Your task to perform on an android device: turn on wifi Image 0: 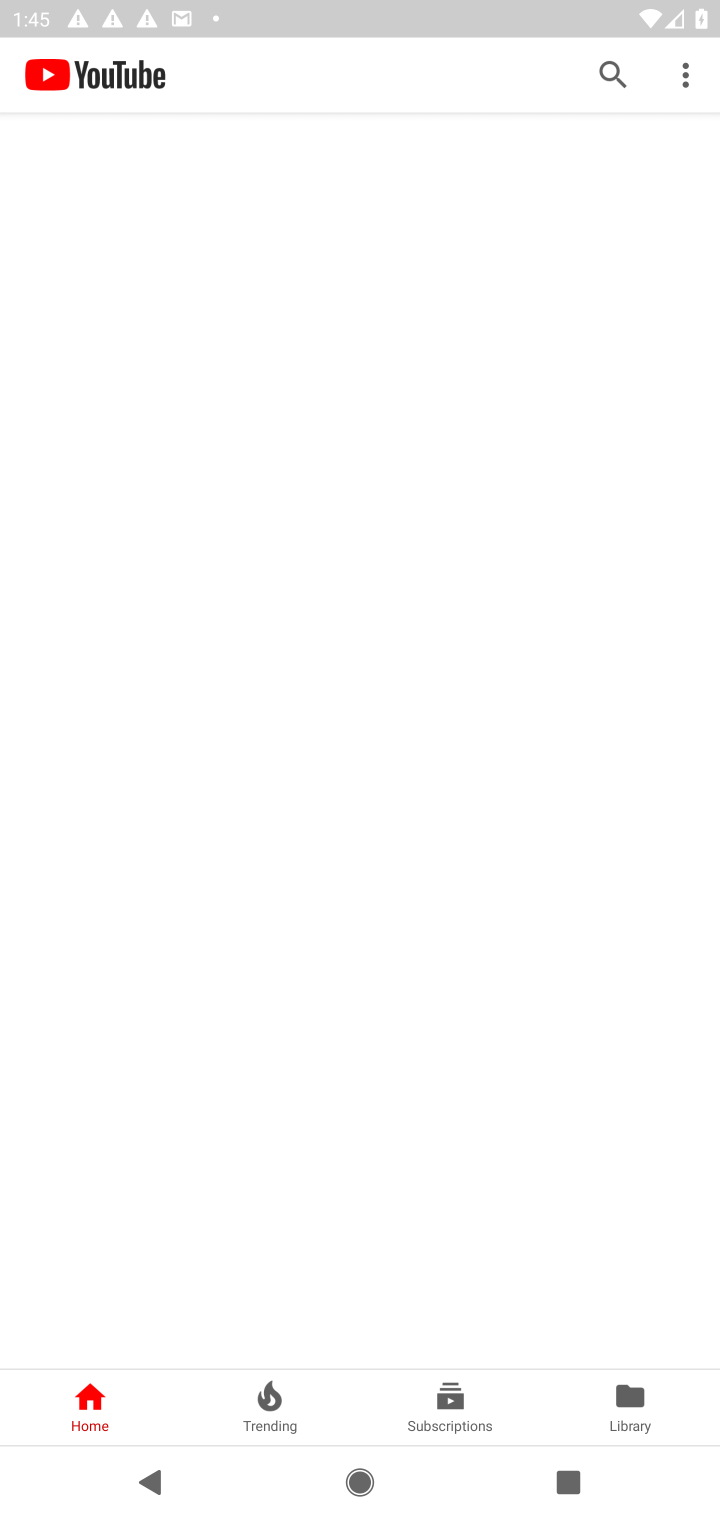
Step 0: press home button
Your task to perform on an android device: turn on wifi Image 1: 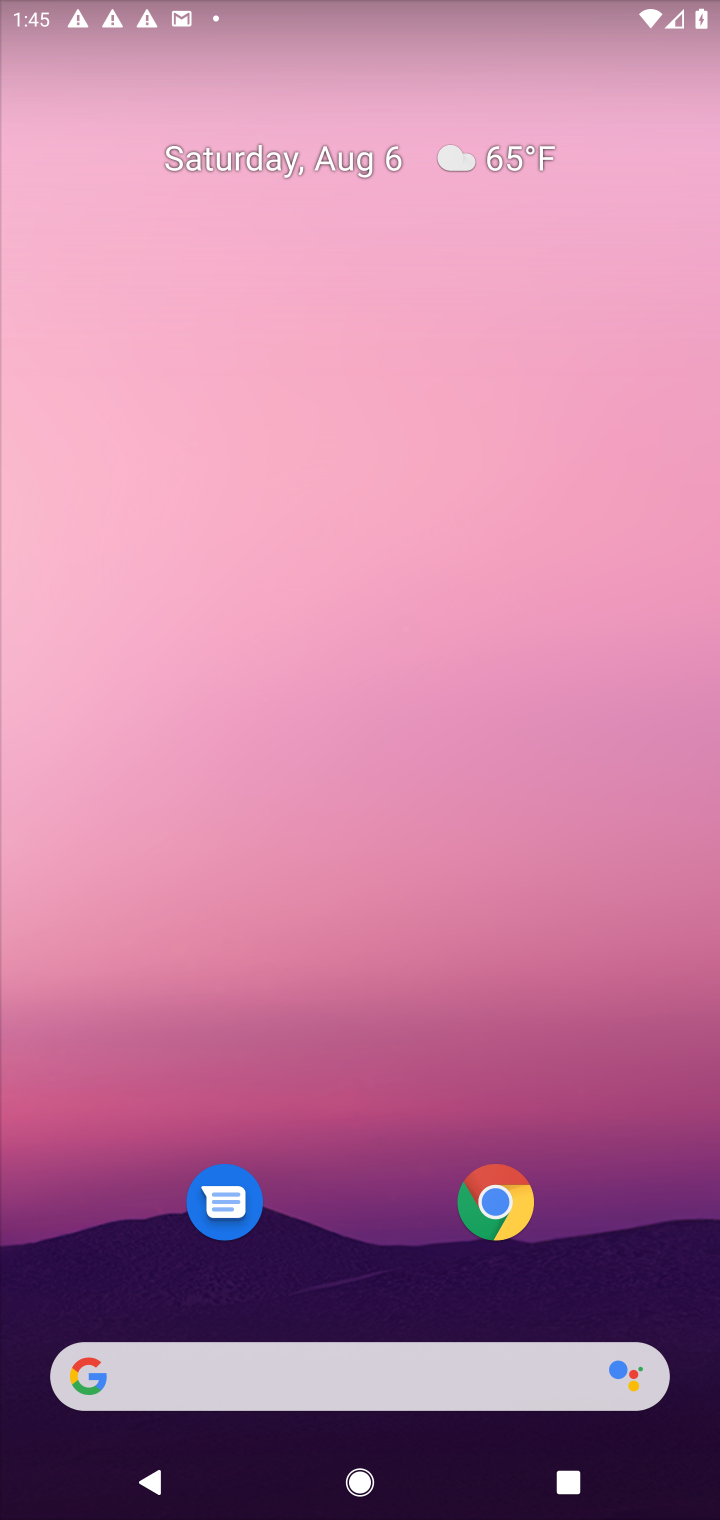
Step 1: drag from (282, 1362) to (254, 858)
Your task to perform on an android device: turn on wifi Image 2: 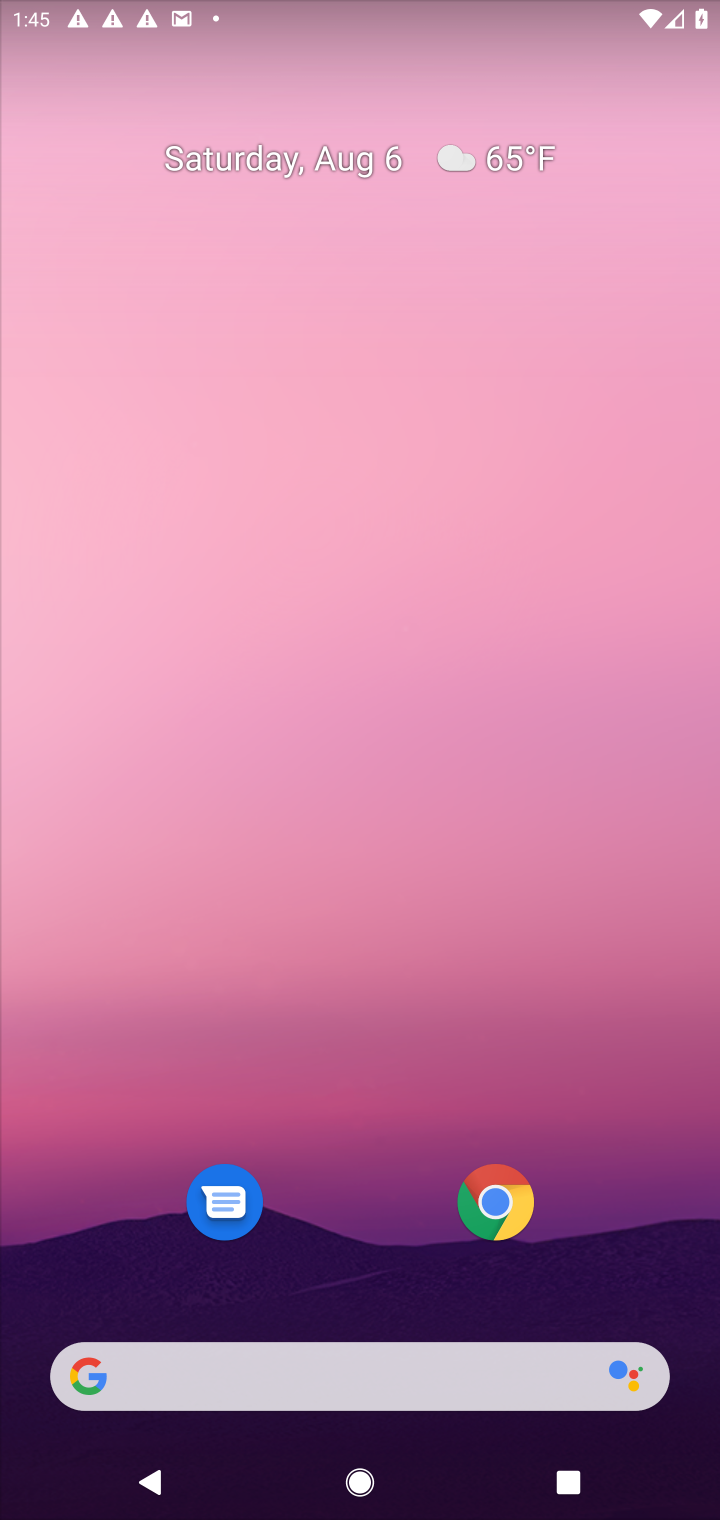
Step 2: drag from (324, 827) to (324, 548)
Your task to perform on an android device: turn on wifi Image 3: 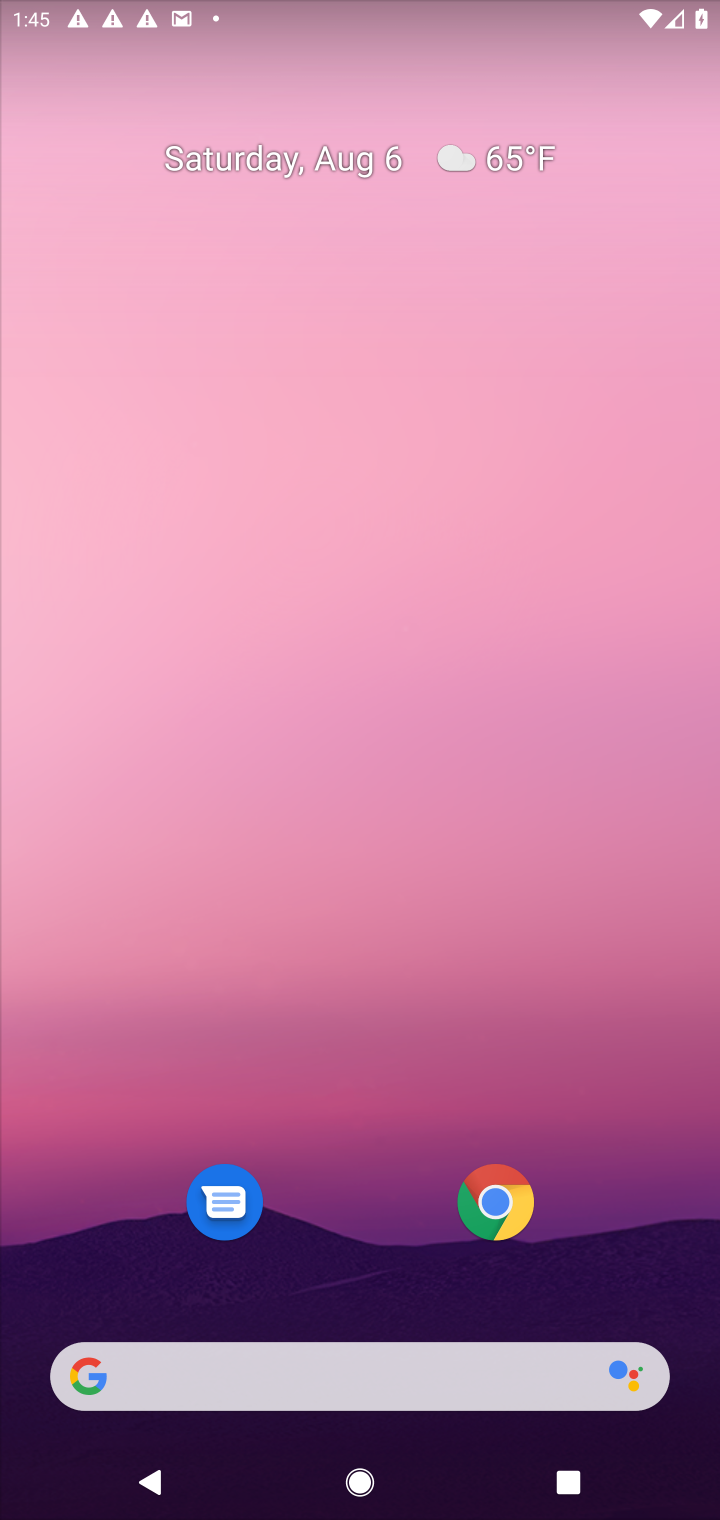
Step 3: drag from (385, 1228) to (352, 631)
Your task to perform on an android device: turn on wifi Image 4: 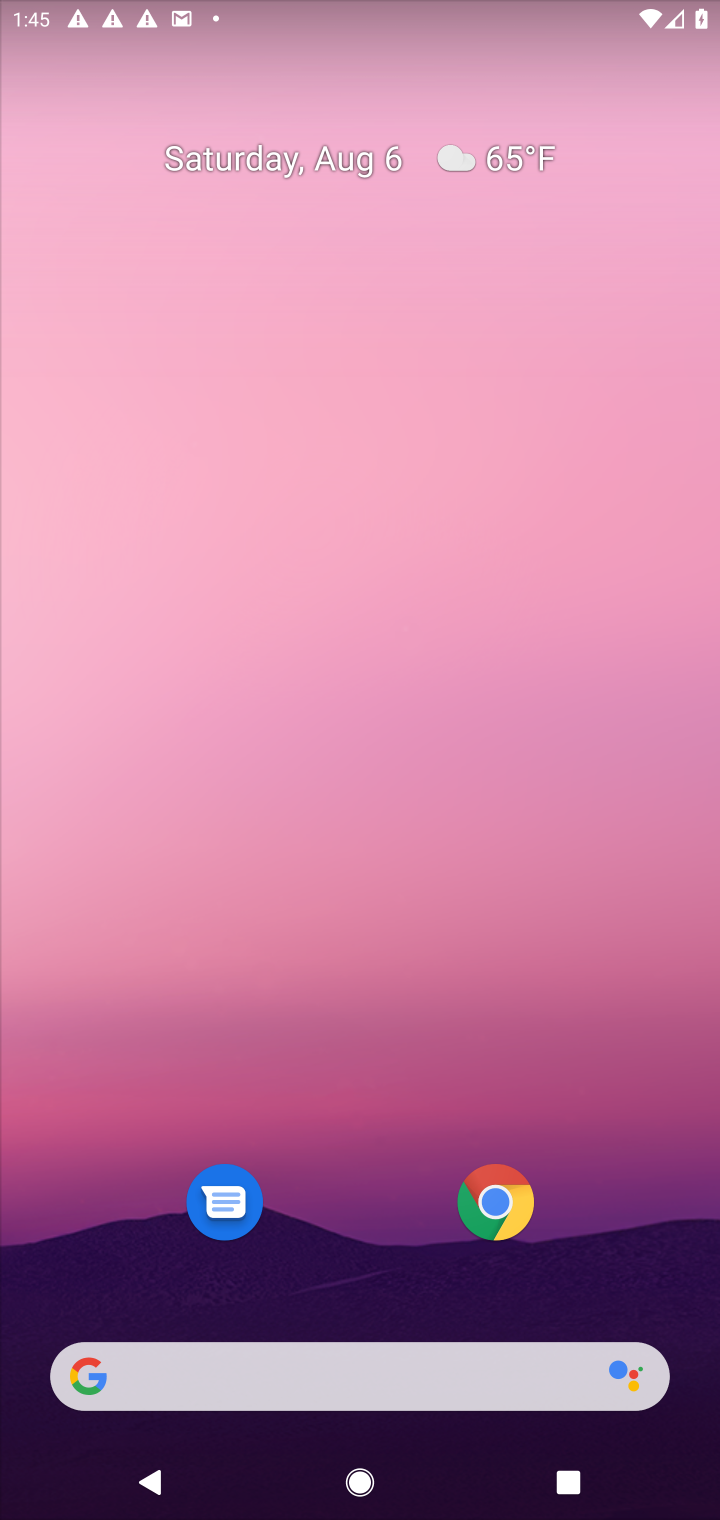
Step 4: click (371, 623)
Your task to perform on an android device: turn on wifi Image 5: 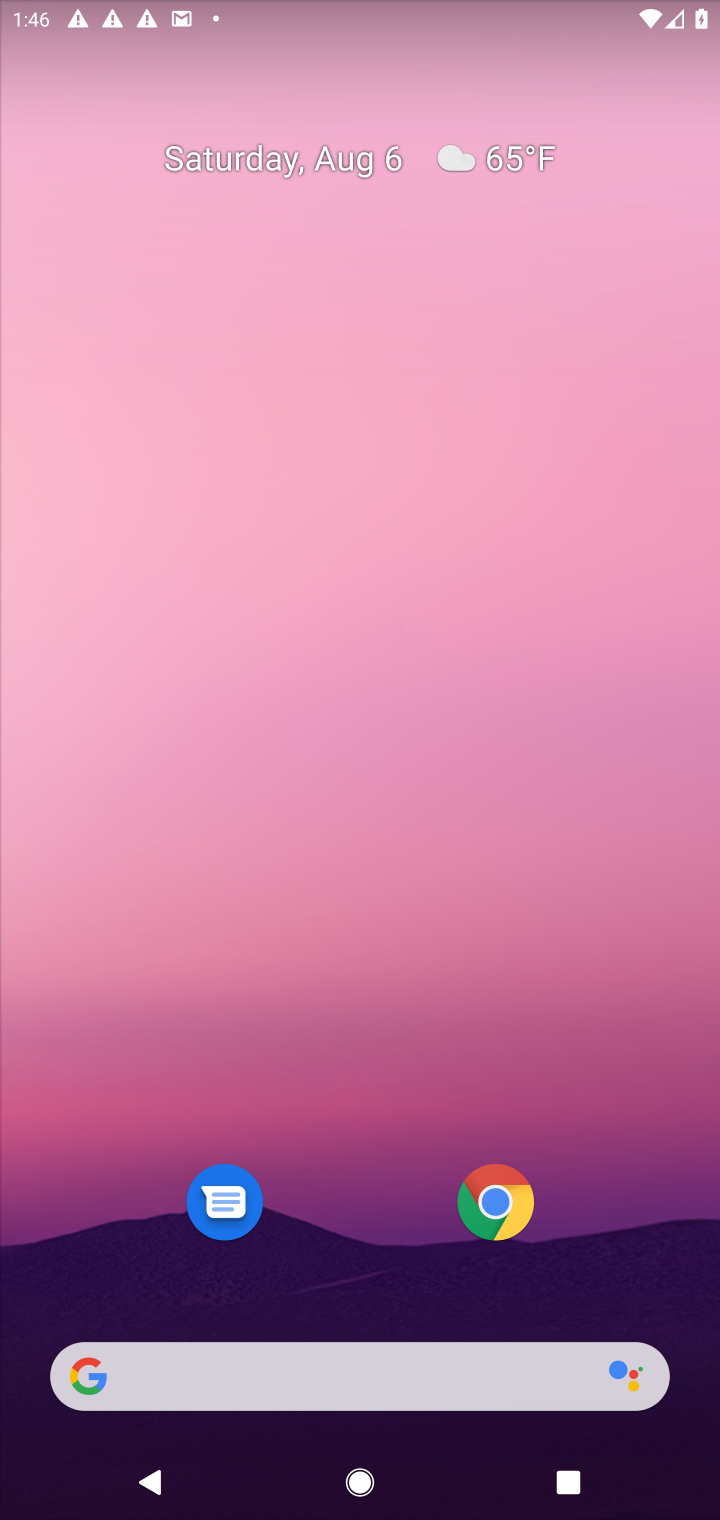
Step 5: drag from (458, 1318) to (422, 2)
Your task to perform on an android device: turn on wifi Image 6: 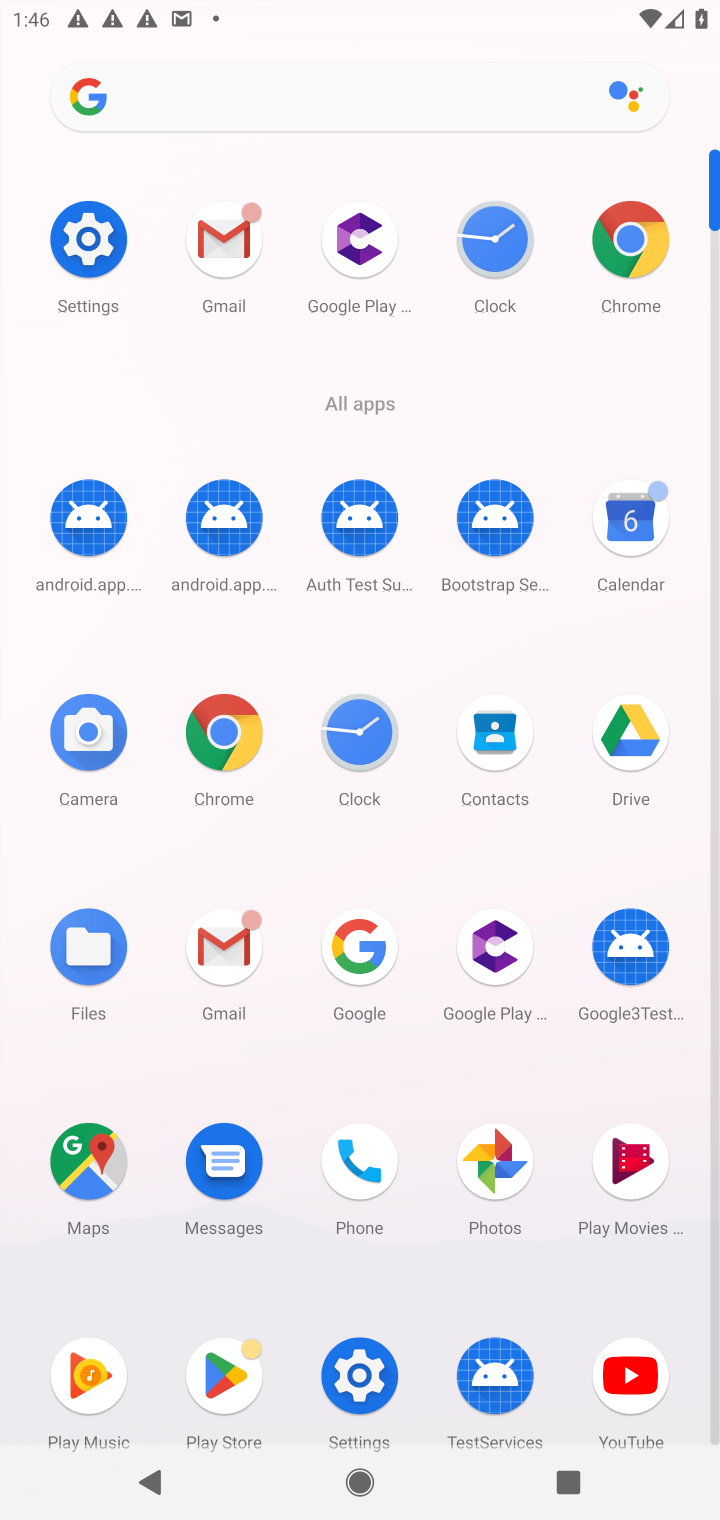
Step 6: click (80, 231)
Your task to perform on an android device: turn on wifi Image 7: 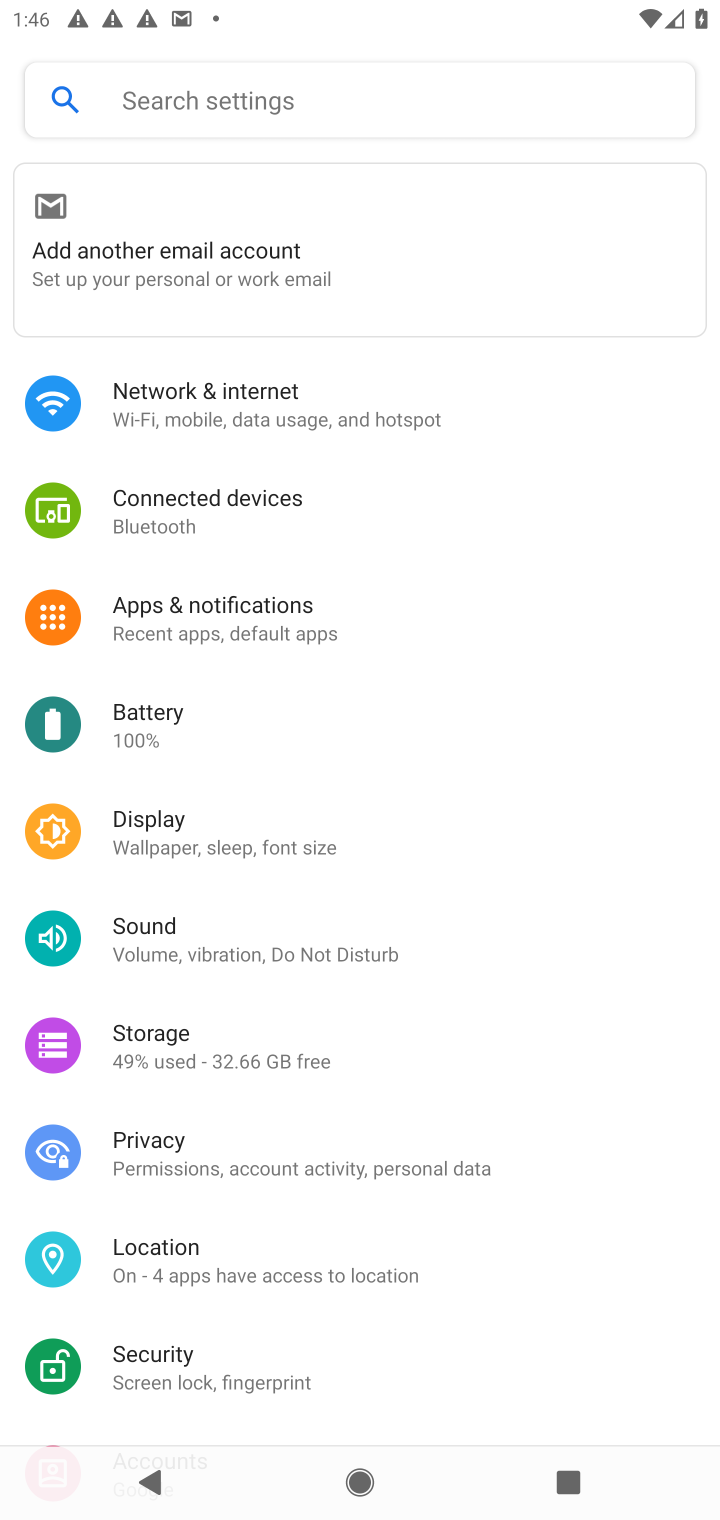
Step 7: click (169, 406)
Your task to perform on an android device: turn on wifi Image 8: 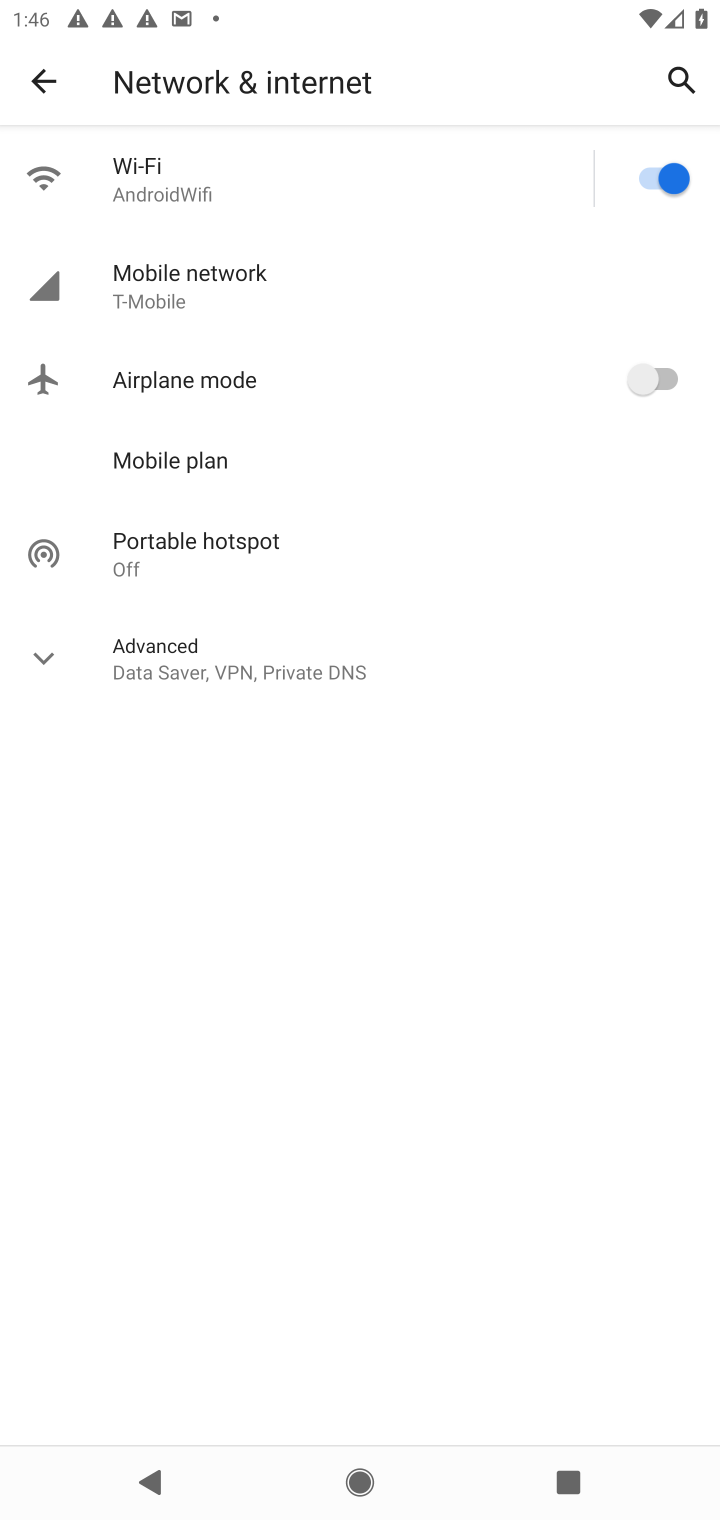
Step 8: task complete